Your task to perform on an android device: turn off notifications settings in the gmail app Image 0: 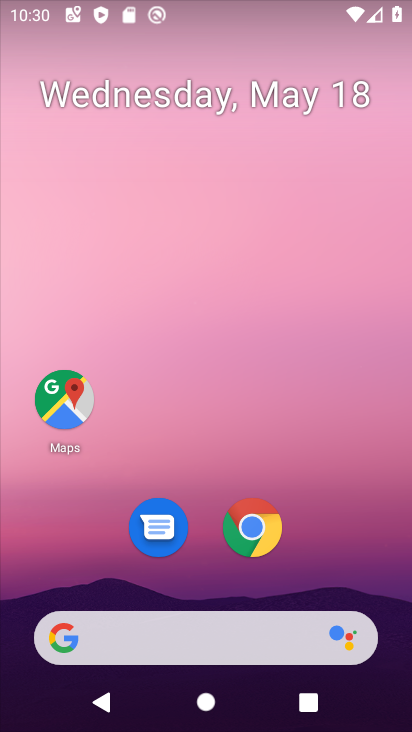
Step 0: click (346, 567)
Your task to perform on an android device: turn off notifications settings in the gmail app Image 1: 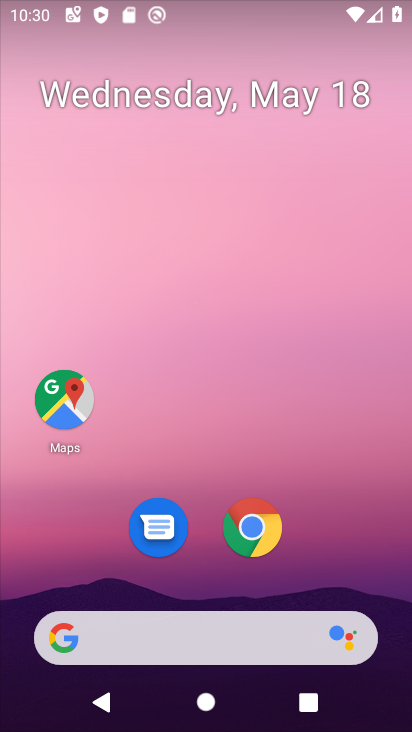
Step 1: drag from (346, 567) to (159, 0)
Your task to perform on an android device: turn off notifications settings in the gmail app Image 2: 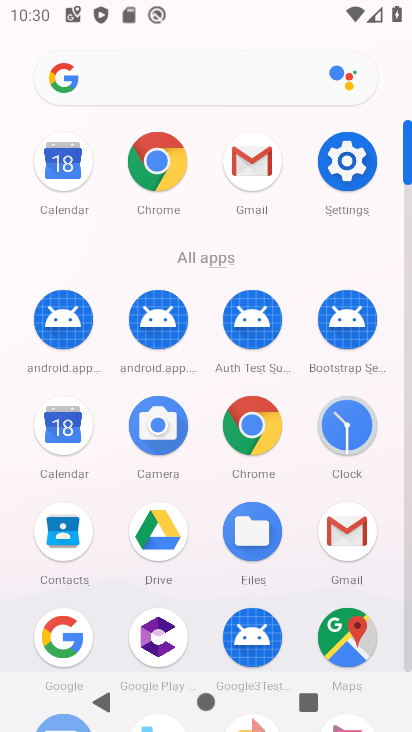
Step 2: click (348, 555)
Your task to perform on an android device: turn off notifications settings in the gmail app Image 3: 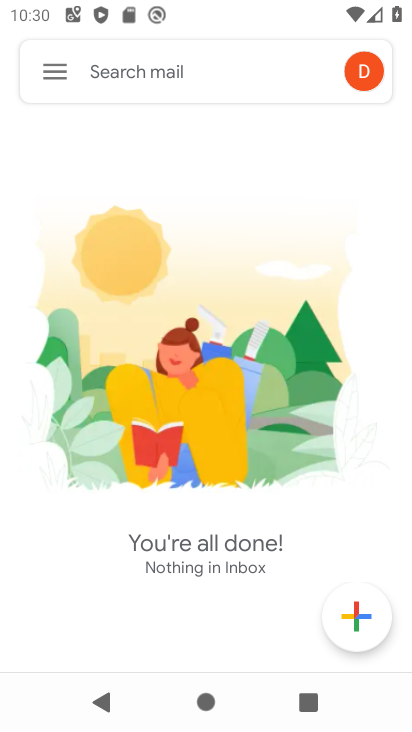
Step 3: click (49, 84)
Your task to perform on an android device: turn off notifications settings in the gmail app Image 4: 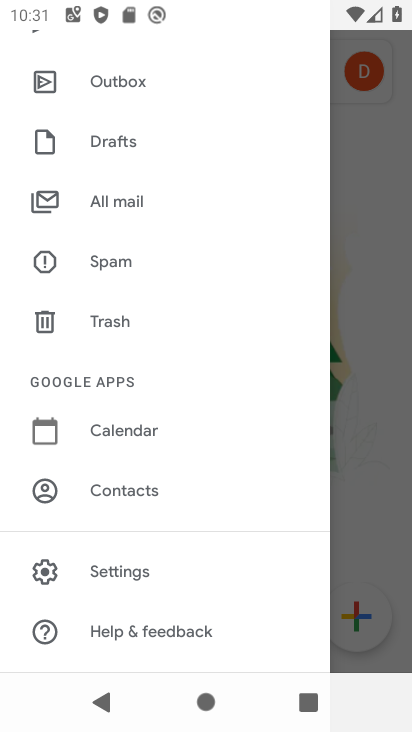
Step 4: click (160, 564)
Your task to perform on an android device: turn off notifications settings in the gmail app Image 5: 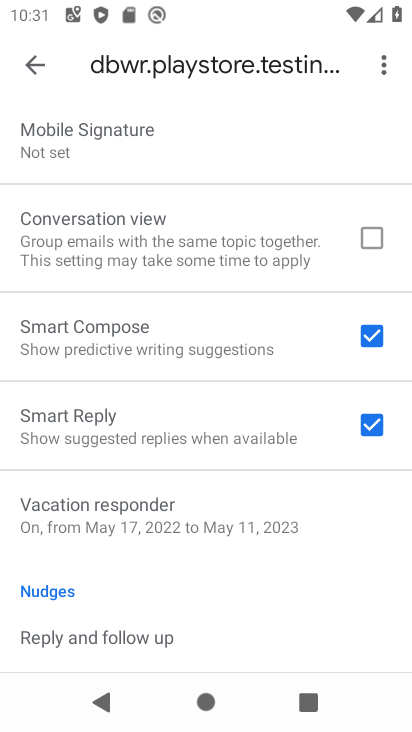
Step 5: drag from (156, 220) to (110, 552)
Your task to perform on an android device: turn off notifications settings in the gmail app Image 6: 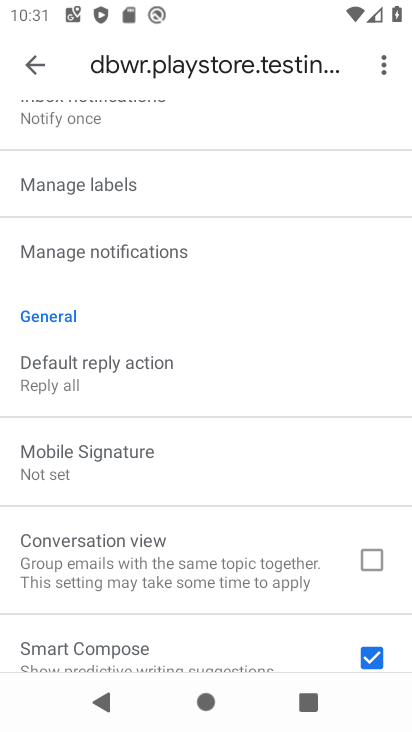
Step 6: click (117, 232)
Your task to perform on an android device: turn off notifications settings in the gmail app Image 7: 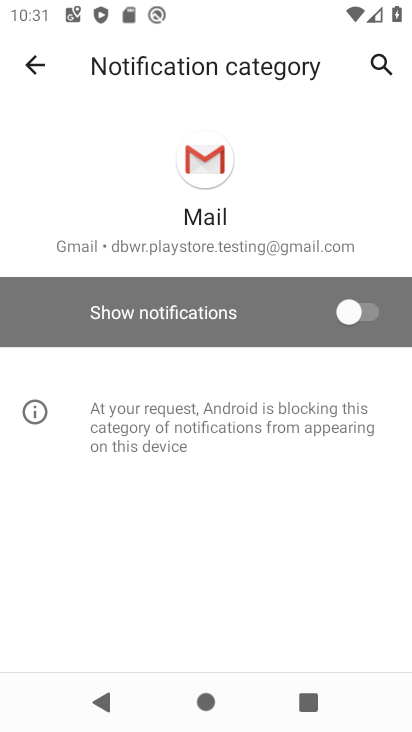
Step 7: click (335, 295)
Your task to perform on an android device: turn off notifications settings in the gmail app Image 8: 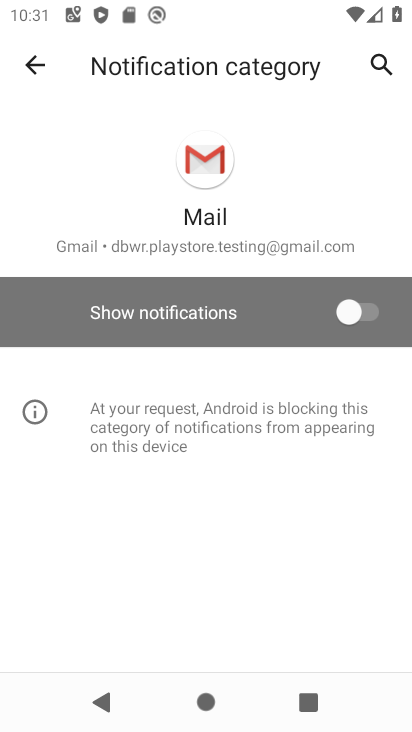
Step 8: task complete